Your task to perform on an android device: Open eBay Image 0: 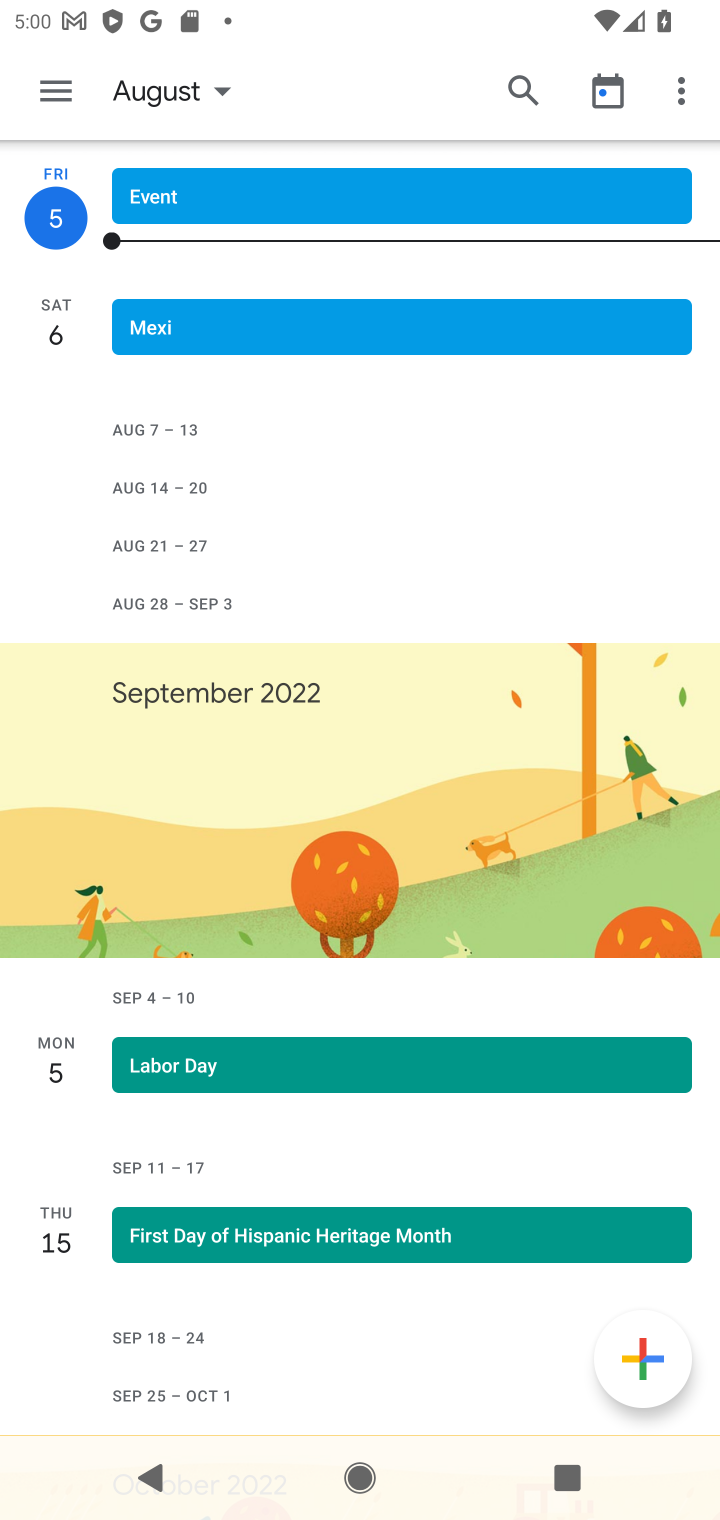
Step 0: press home button
Your task to perform on an android device: Open eBay Image 1: 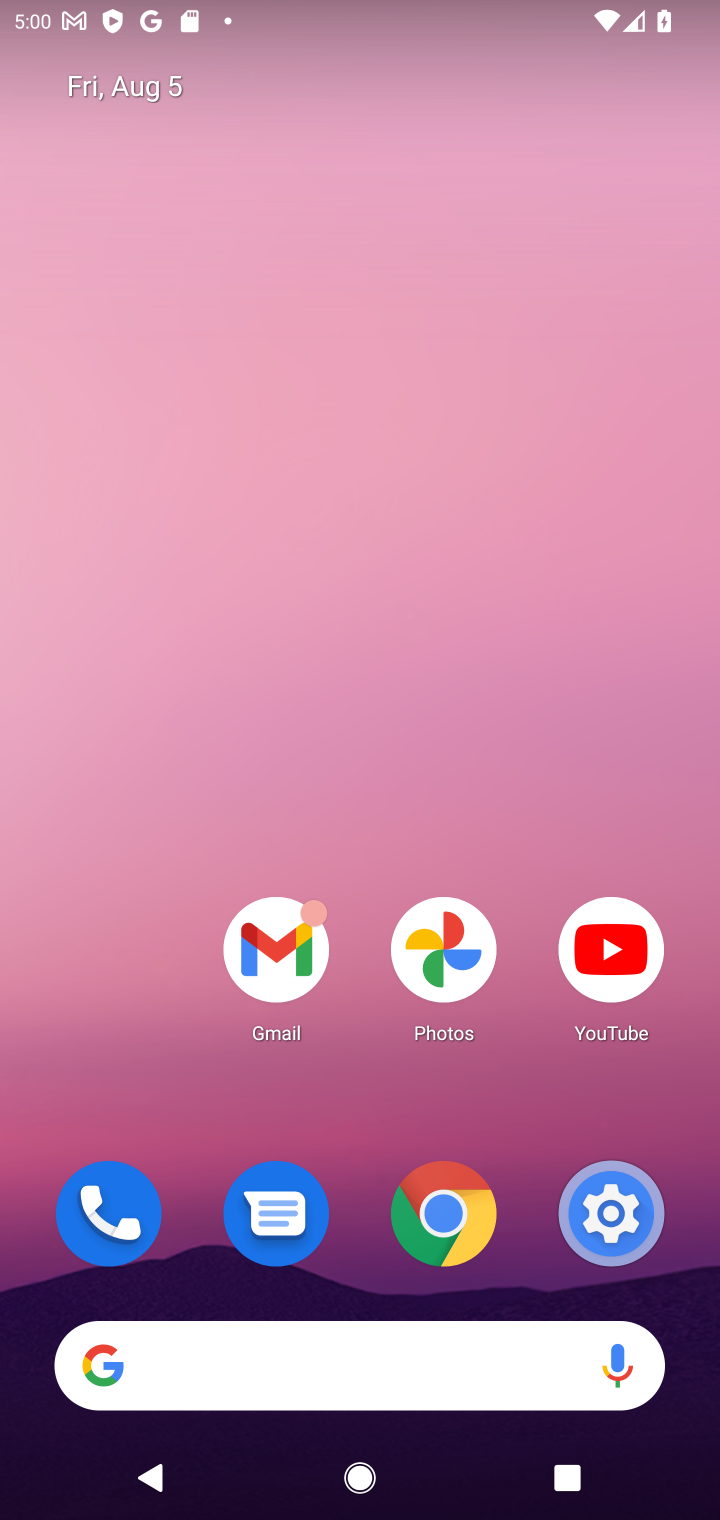
Step 1: click (440, 1226)
Your task to perform on an android device: Open eBay Image 2: 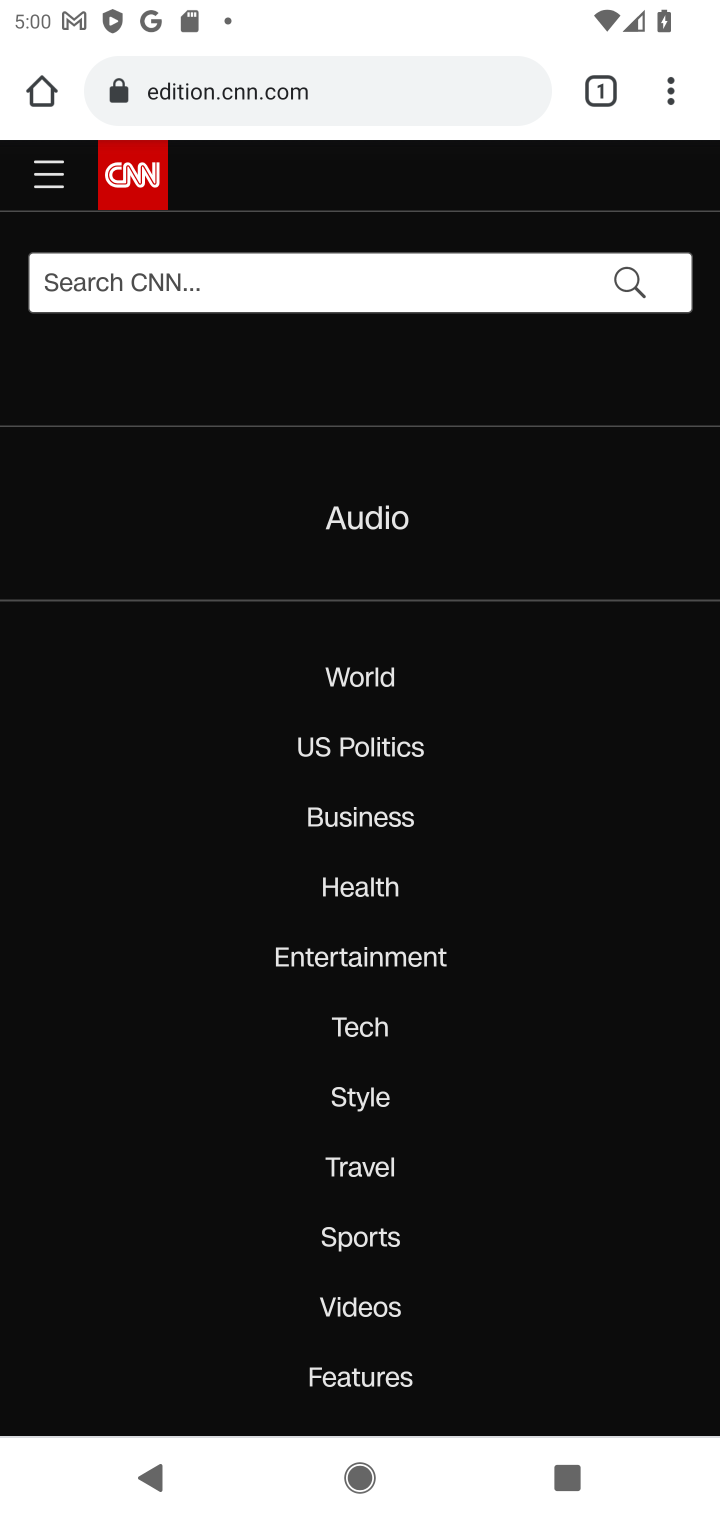
Step 2: click (479, 113)
Your task to perform on an android device: Open eBay Image 3: 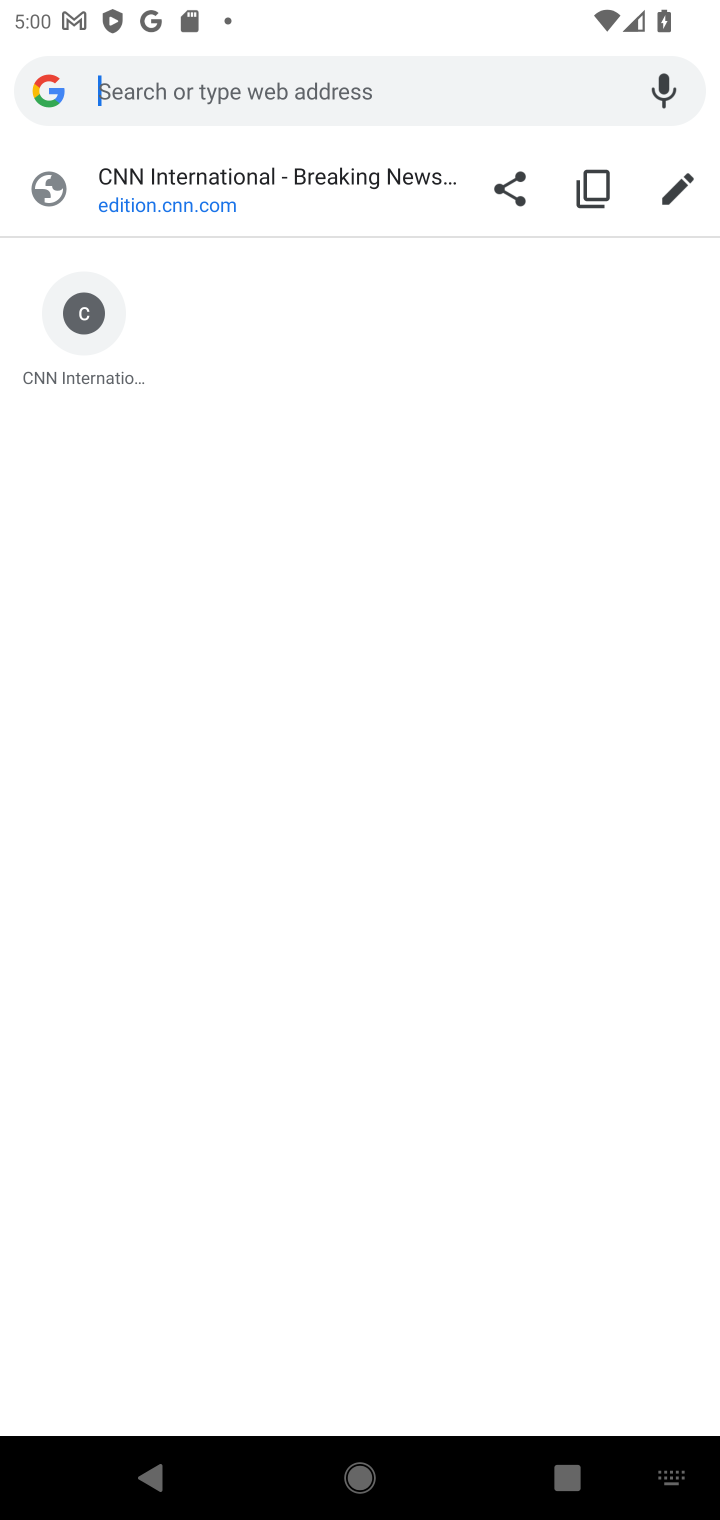
Step 3: type "ebay"
Your task to perform on an android device: Open eBay Image 4: 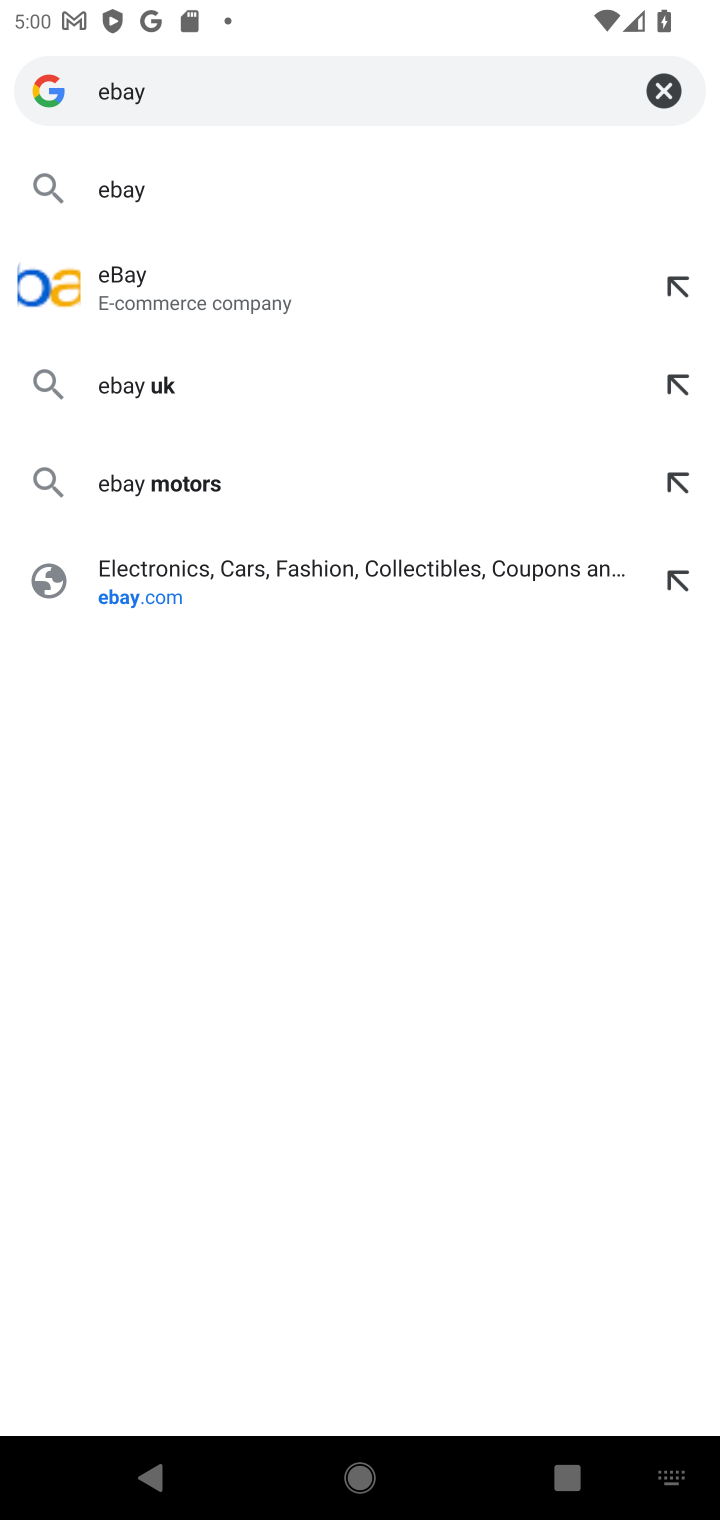
Step 4: click (316, 301)
Your task to perform on an android device: Open eBay Image 5: 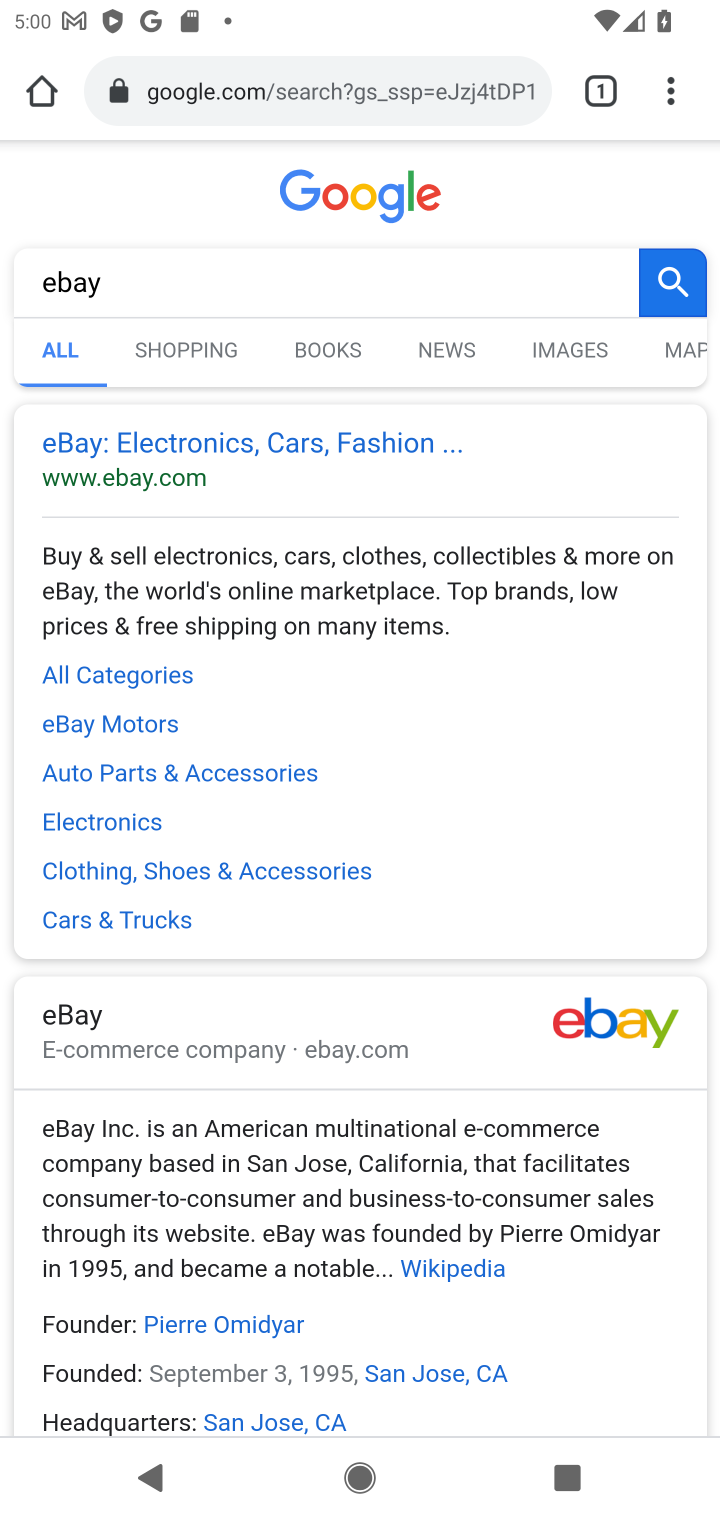
Step 5: click (397, 462)
Your task to perform on an android device: Open eBay Image 6: 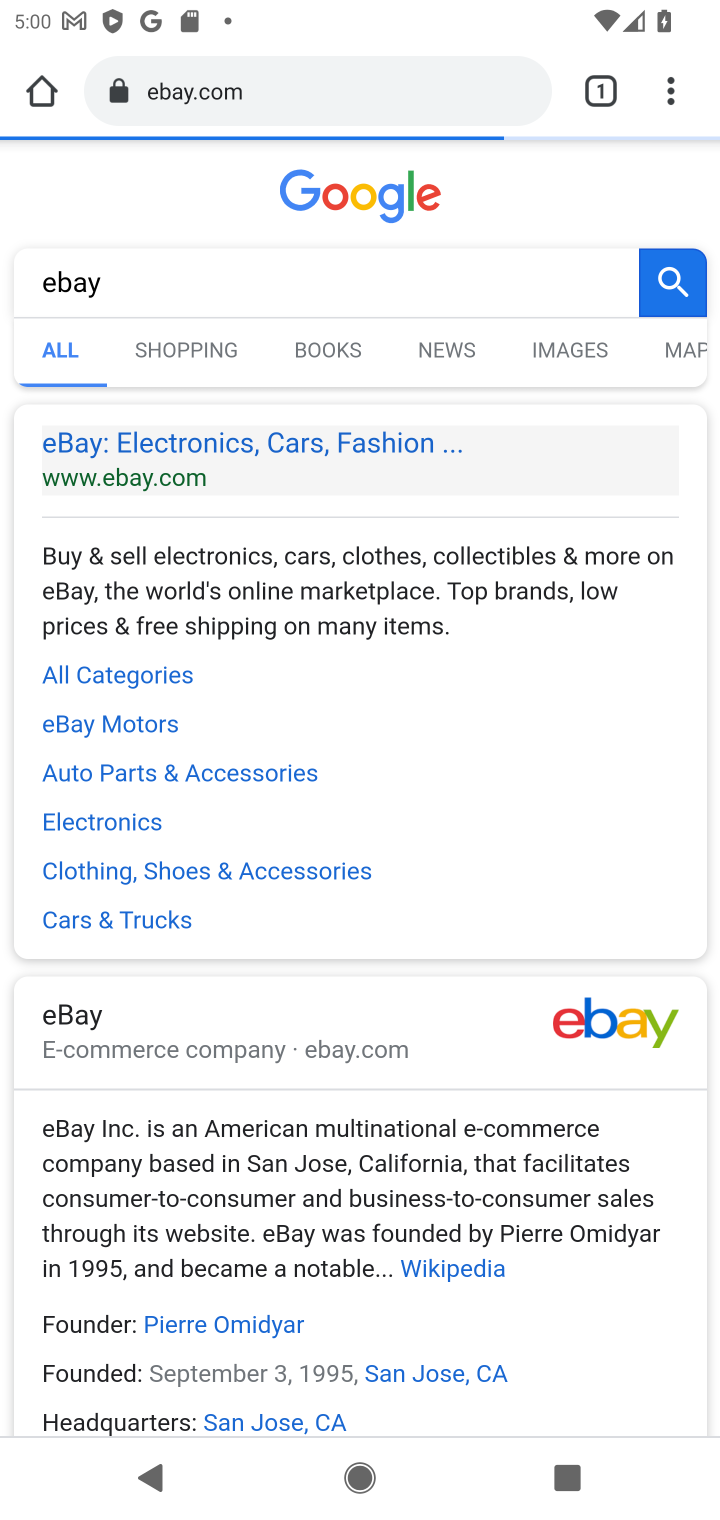
Step 6: task complete